Your task to perform on an android device: Go to CNN.com Image 0: 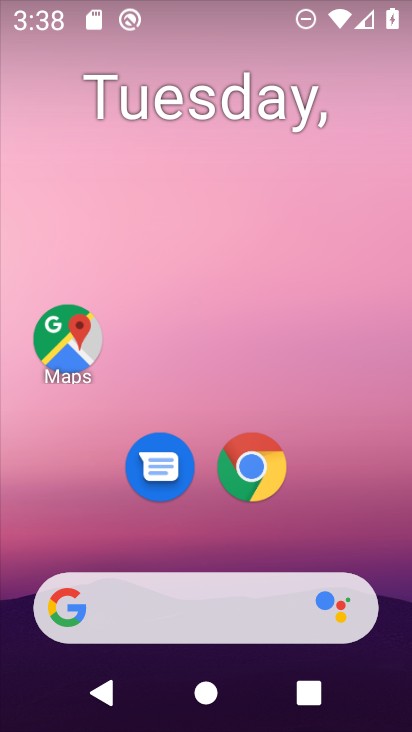
Step 0: click (247, 468)
Your task to perform on an android device: Go to CNN.com Image 1: 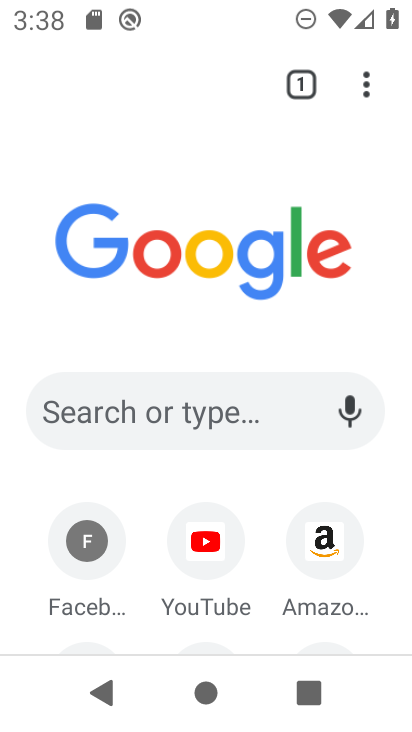
Step 1: click (190, 416)
Your task to perform on an android device: Go to CNN.com Image 2: 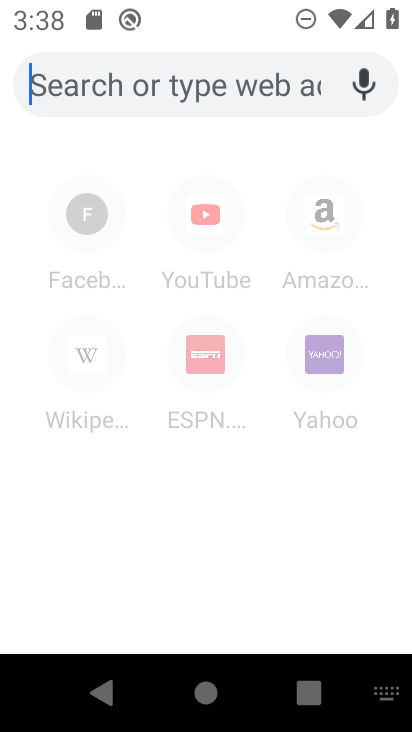
Step 2: type "cnn"
Your task to perform on an android device: Go to CNN.com Image 3: 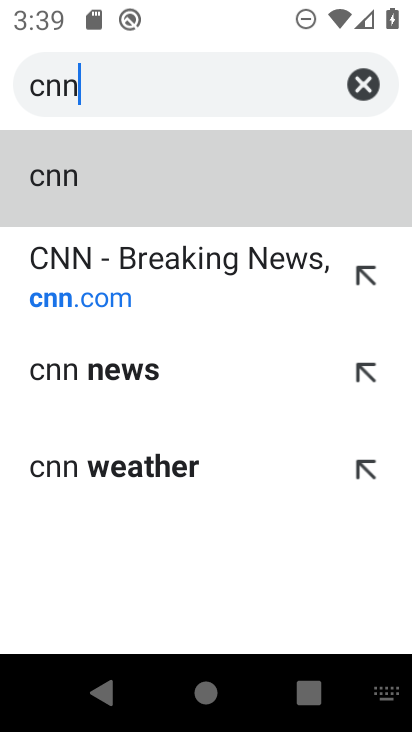
Step 3: click (147, 280)
Your task to perform on an android device: Go to CNN.com Image 4: 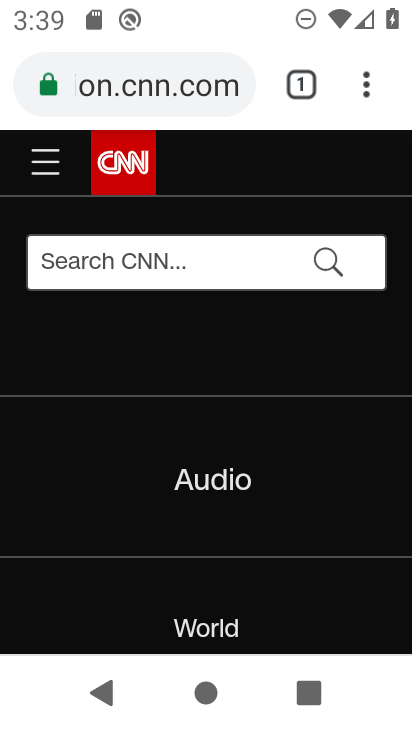
Step 4: task complete